Your task to perform on an android device: Open Google Maps Image 0: 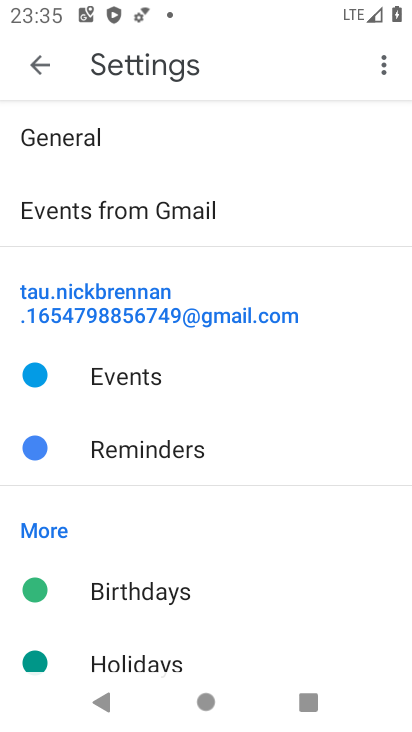
Step 0: press home button
Your task to perform on an android device: Open Google Maps Image 1: 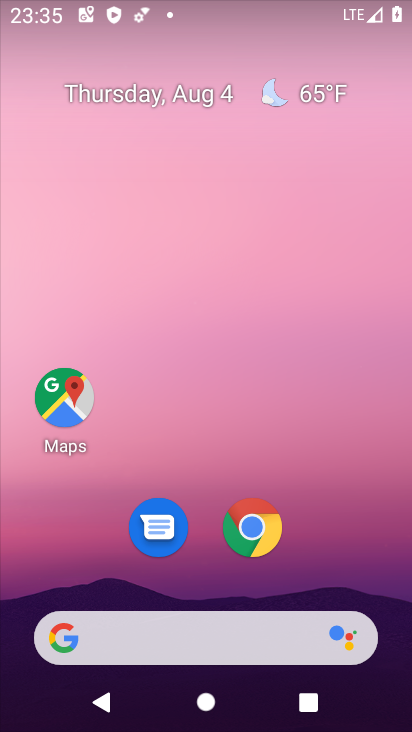
Step 1: drag from (154, 707) to (377, 248)
Your task to perform on an android device: Open Google Maps Image 2: 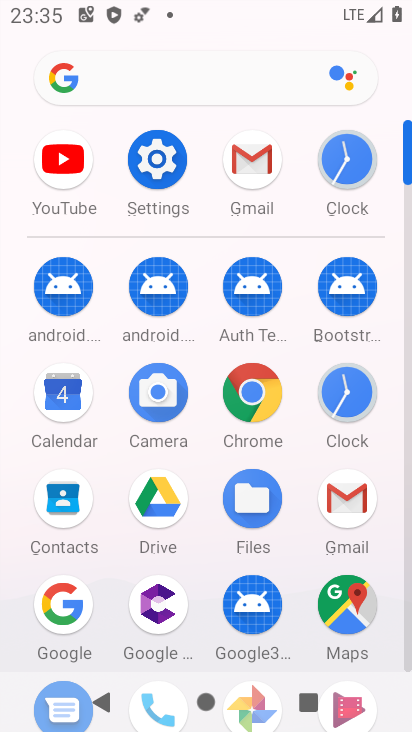
Step 2: click (256, 174)
Your task to perform on an android device: Open Google Maps Image 3: 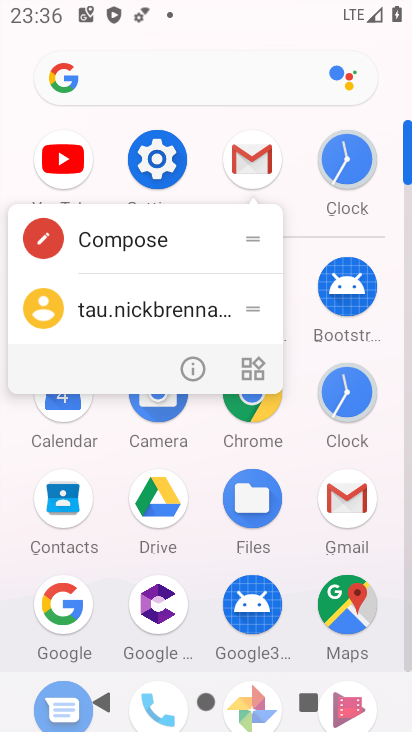
Step 3: click (256, 174)
Your task to perform on an android device: Open Google Maps Image 4: 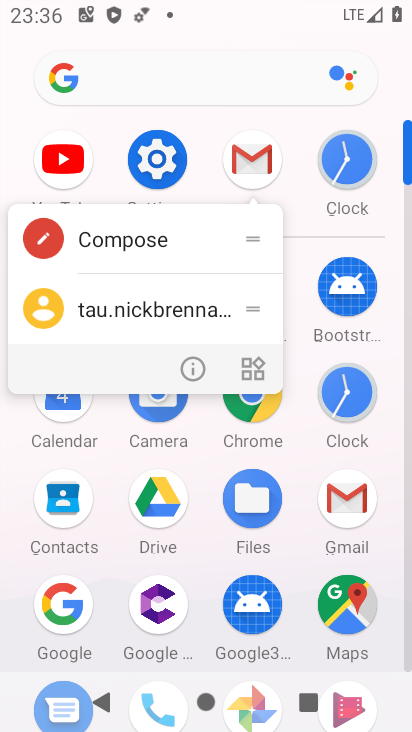
Step 4: click (256, 174)
Your task to perform on an android device: Open Google Maps Image 5: 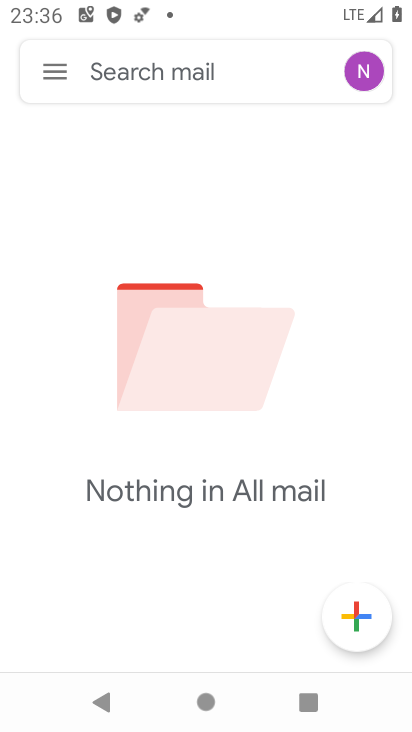
Step 5: press home button
Your task to perform on an android device: Open Google Maps Image 6: 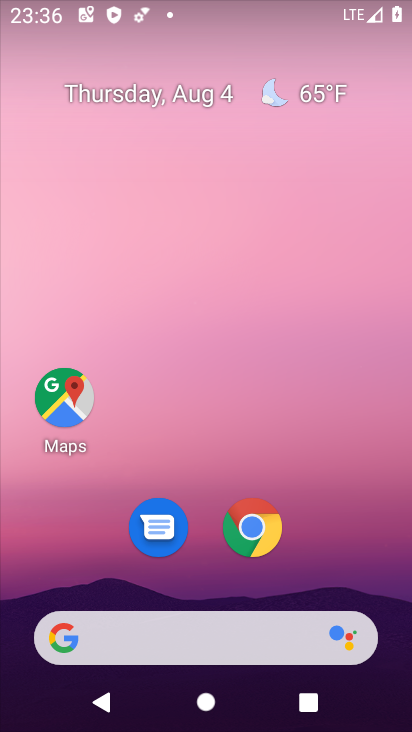
Step 6: drag from (263, 701) to (170, 719)
Your task to perform on an android device: Open Google Maps Image 7: 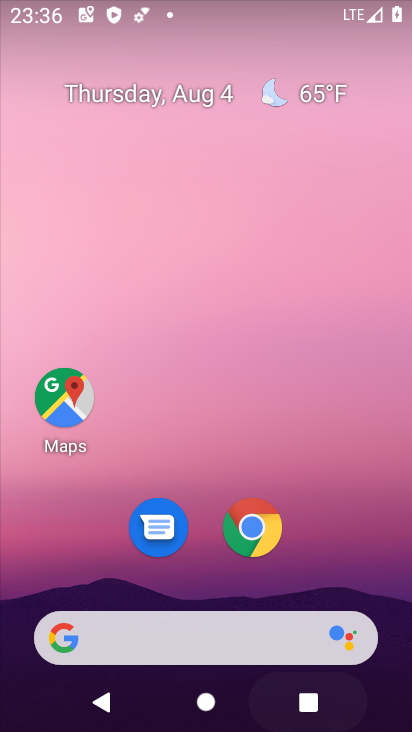
Step 7: click (61, 398)
Your task to perform on an android device: Open Google Maps Image 8: 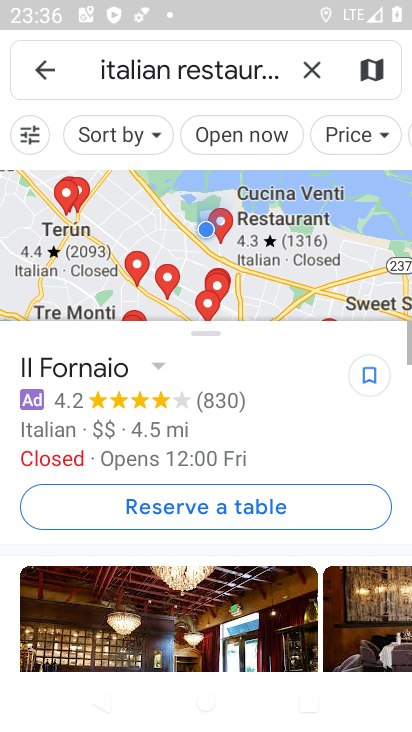
Step 8: task complete